Your task to perform on an android device: What's on my calendar today? Image 0: 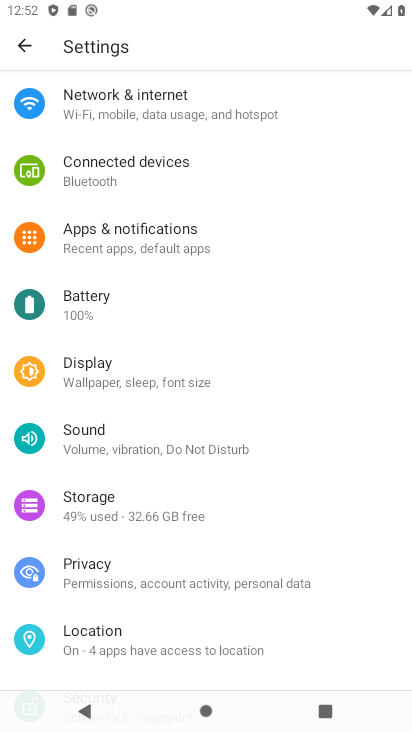
Step 0: press home button
Your task to perform on an android device: What's on my calendar today? Image 1: 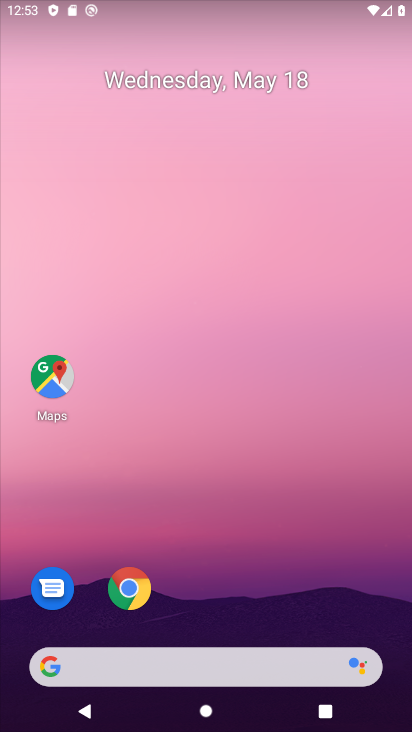
Step 1: drag from (337, 595) to (338, 115)
Your task to perform on an android device: What's on my calendar today? Image 2: 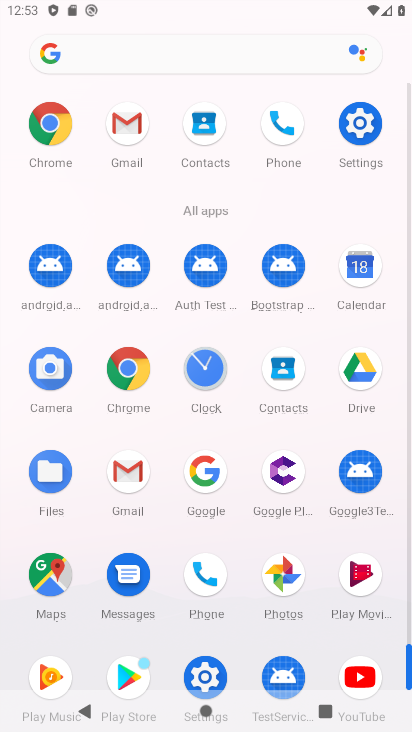
Step 2: click (364, 295)
Your task to perform on an android device: What's on my calendar today? Image 3: 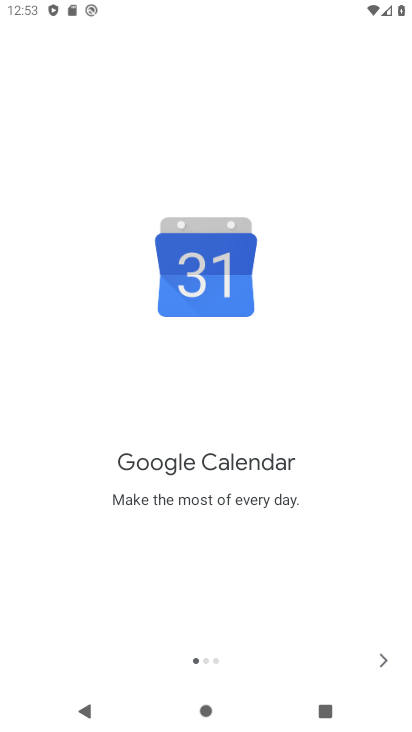
Step 3: click (383, 664)
Your task to perform on an android device: What's on my calendar today? Image 4: 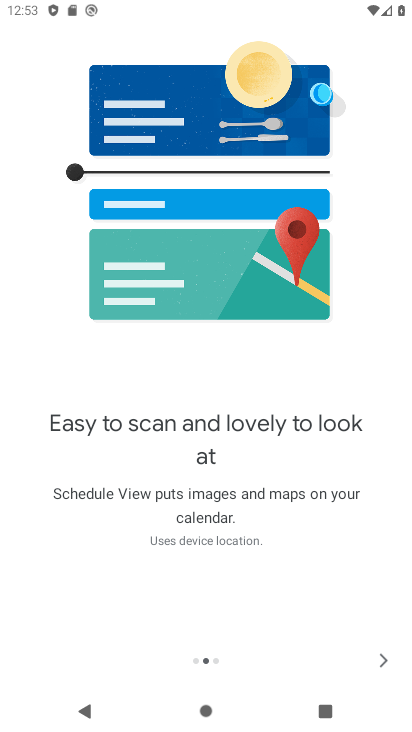
Step 4: click (373, 652)
Your task to perform on an android device: What's on my calendar today? Image 5: 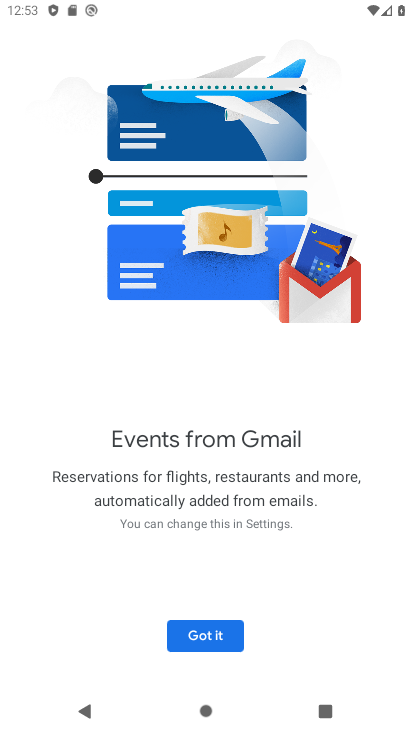
Step 5: click (200, 635)
Your task to perform on an android device: What's on my calendar today? Image 6: 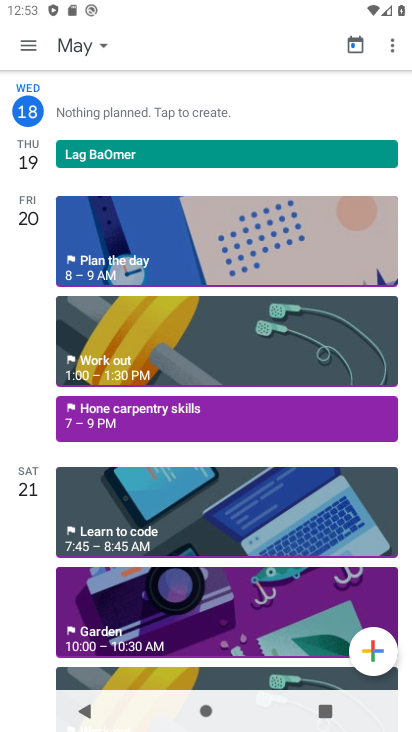
Step 6: click (97, 46)
Your task to perform on an android device: What's on my calendar today? Image 7: 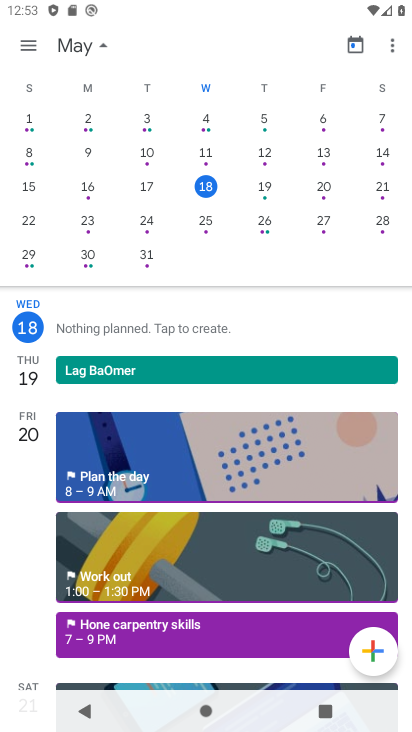
Step 7: click (208, 175)
Your task to perform on an android device: What's on my calendar today? Image 8: 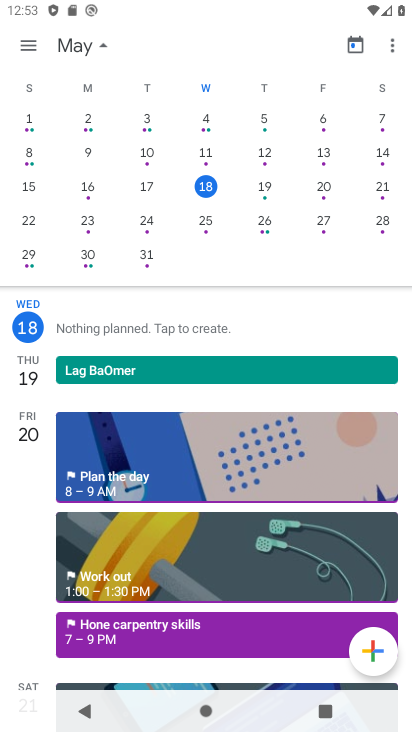
Step 8: task complete